Your task to perform on an android device: turn on javascript in the chrome app Image 0: 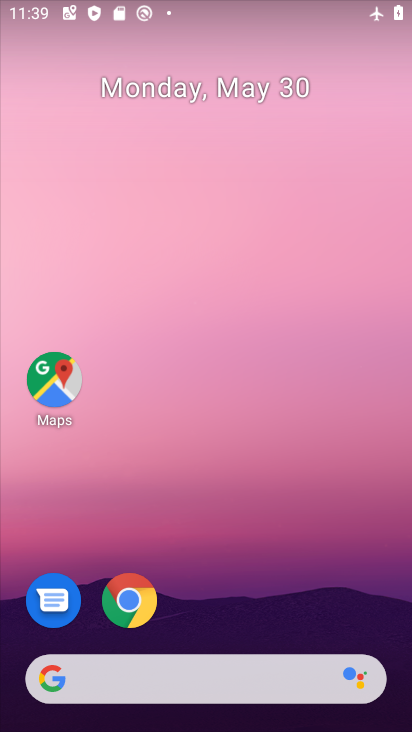
Step 0: click (129, 606)
Your task to perform on an android device: turn on javascript in the chrome app Image 1: 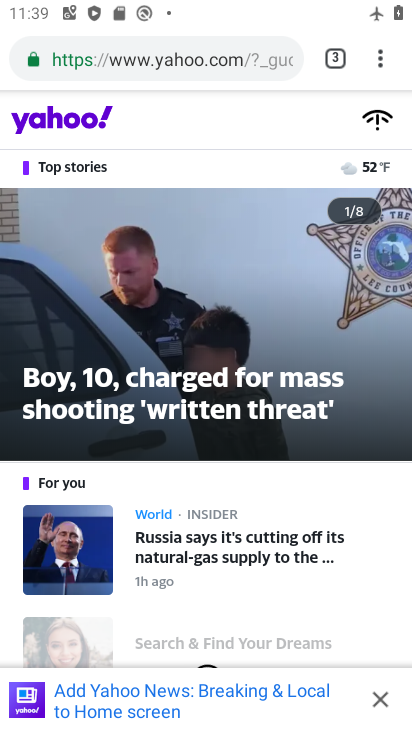
Step 1: click (380, 64)
Your task to perform on an android device: turn on javascript in the chrome app Image 2: 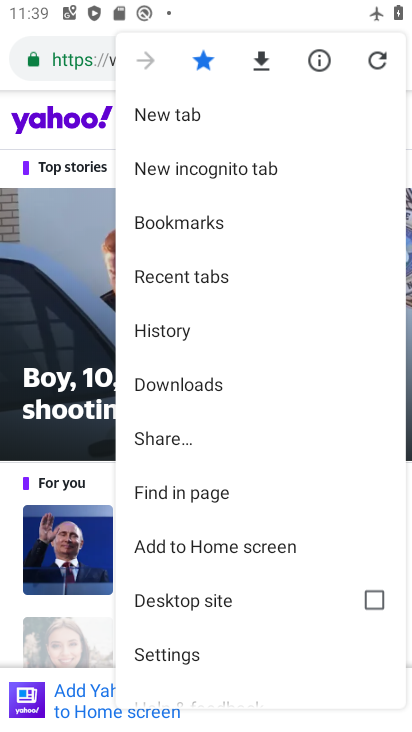
Step 2: click (181, 647)
Your task to perform on an android device: turn on javascript in the chrome app Image 3: 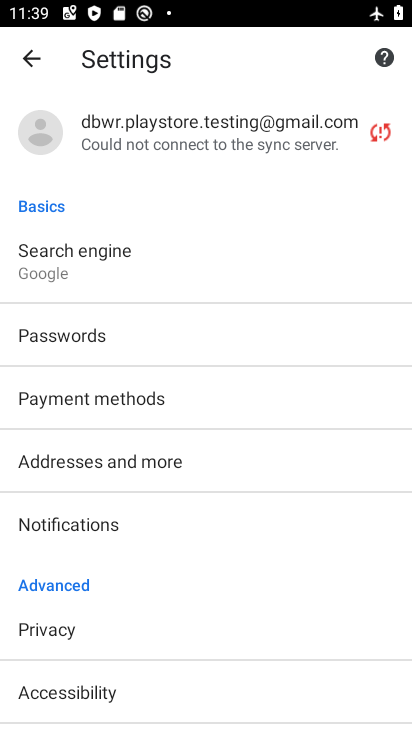
Step 3: drag from (204, 710) to (191, 210)
Your task to perform on an android device: turn on javascript in the chrome app Image 4: 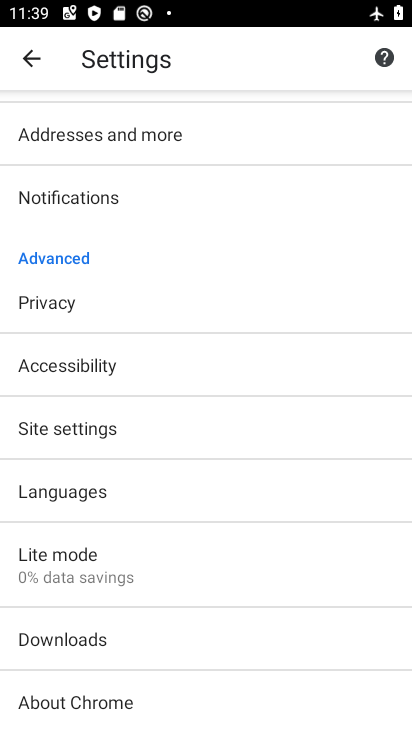
Step 4: click (111, 426)
Your task to perform on an android device: turn on javascript in the chrome app Image 5: 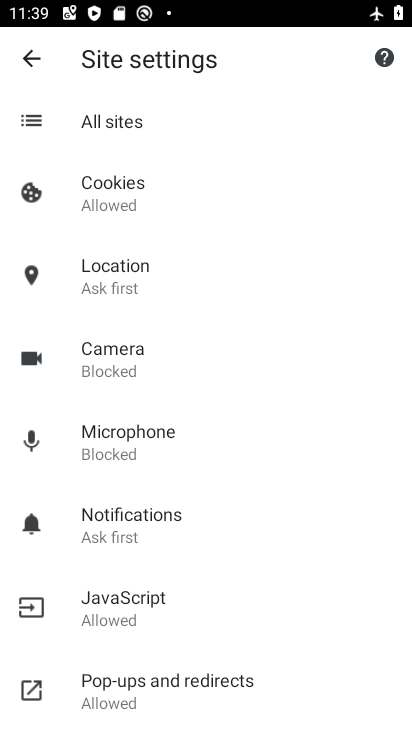
Step 5: click (118, 605)
Your task to perform on an android device: turn on javascript in the chrome app Image 6: 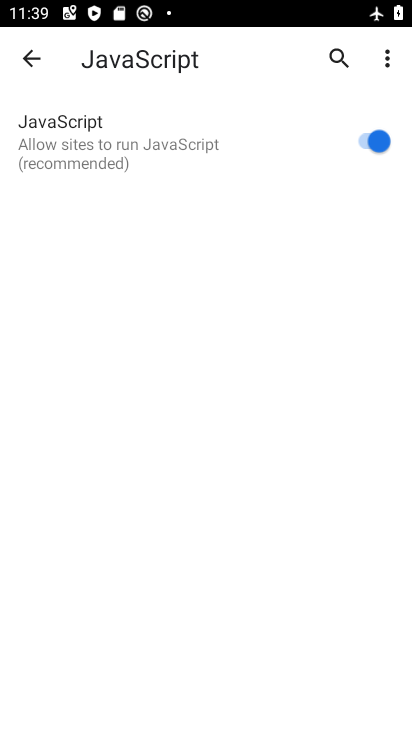
Step 6: task complete